Your task to perform on an android device: open a bookmark in the chrome app Image 0: 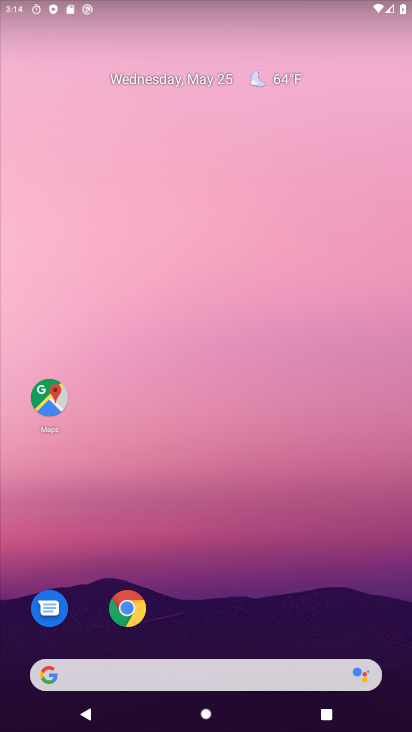
Step 0: click (119, 606)
Your task to perform on an android device: open a bookmark in the chrome app Image 1: 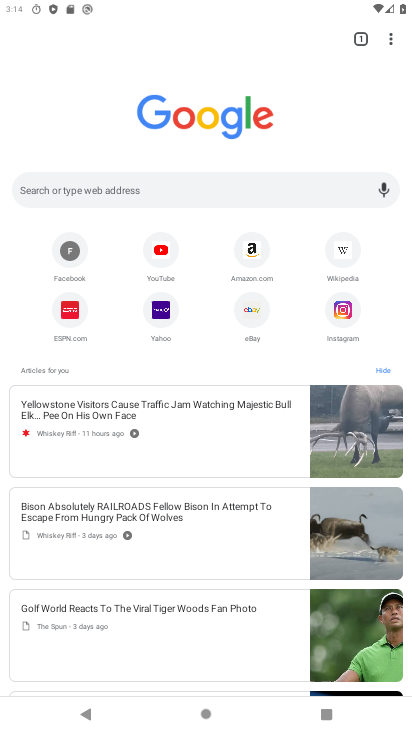
Step 1: drag from (393, 36) to (281, 152)
Your task to perform on an android device: open a bookmark in the chrome app Image 2: 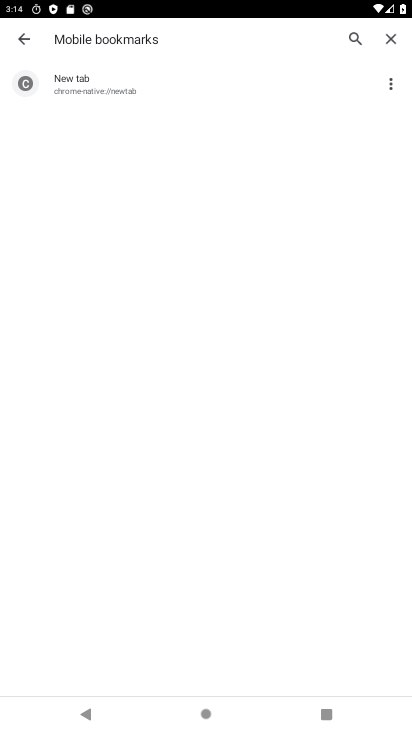
Step 2: click (111, 85)
Your task to perform on an android device: open a bookmark in the chrome app Image 3: 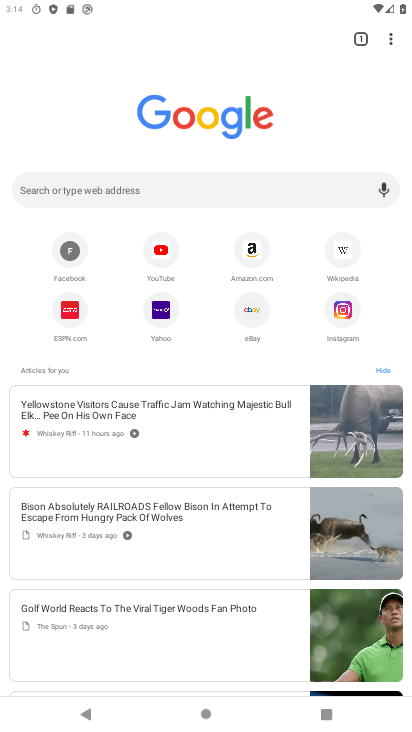
Step 3: task complete